Your task to perform on an android device: Set the phone to "Do not disturb". Image 0: 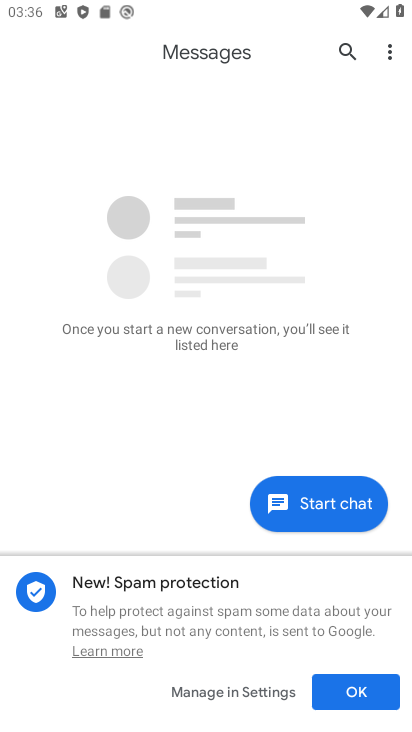
Step 0: press home button
Your task to perform on an android device: Set the phone to "Do not disturb". Image 1: 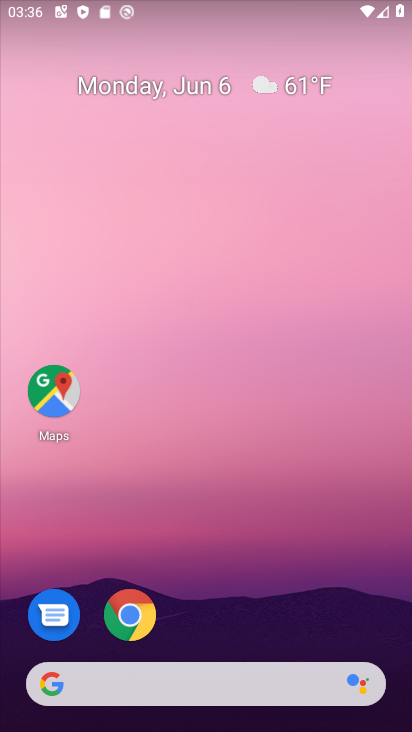
Step 1: drag from (395, 631) to (312, 102)
Your task to perform on an android device: Set the phone to "Do not disturb". Image 2: 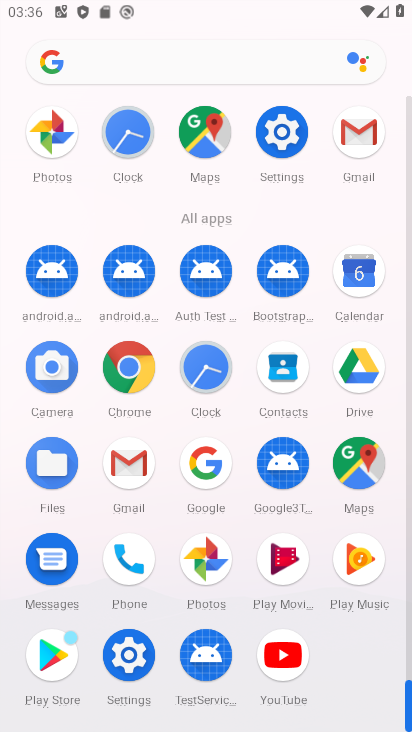
Step 2: click (128, 654)
Your task to perform on an android device: Set the phone to "Do not disturb". Image 3: 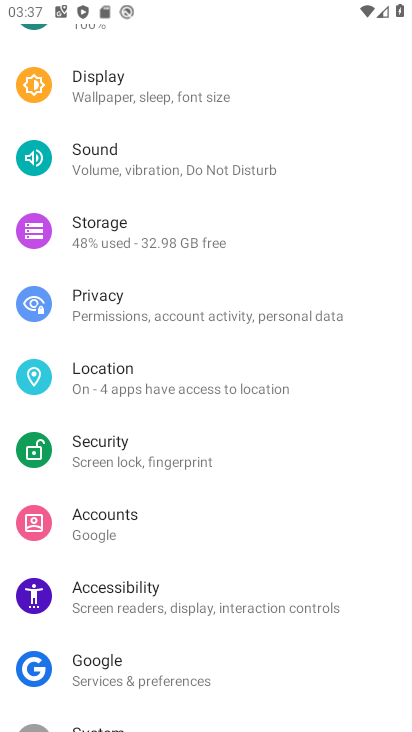
Step 3: click (138, 172)
Your task to perform on an android device: Set the phone to "Do not disturb". Image 4: 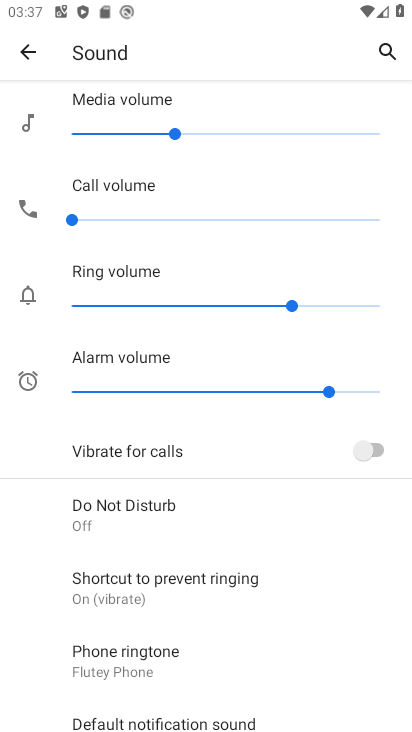
Step 4: click (90, 513)
Your task to perform on an android device: Set the phone to "Do not disturb". Image 5: 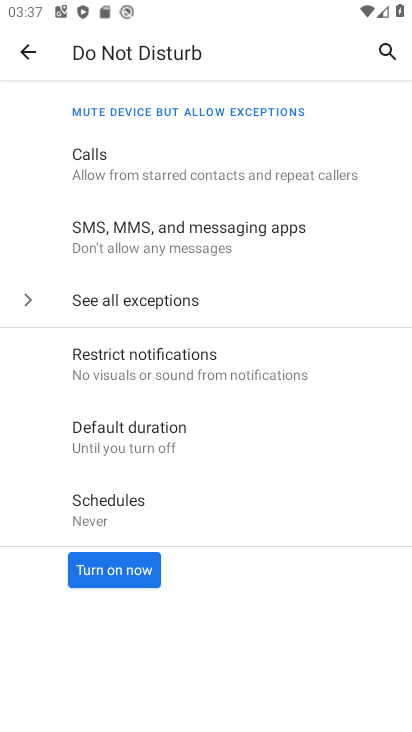
Step 5: click (104, 566)
Your task to perform on an android device: Set the phone to "Do not disturb". Image 6: 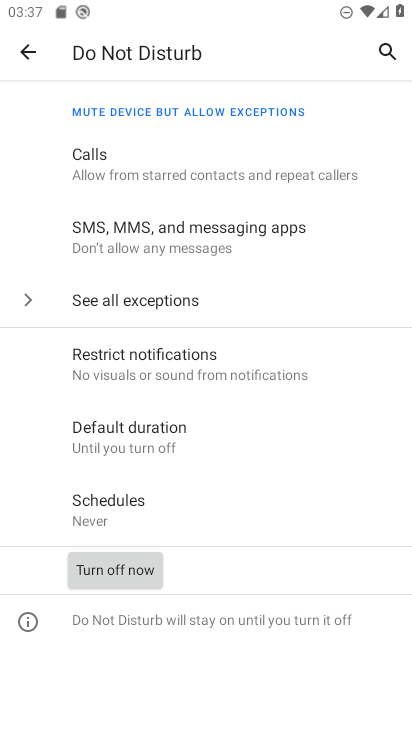
Step 6: task complete